Your task to perform on an android device: allow cookies in the chrome app Image 0: 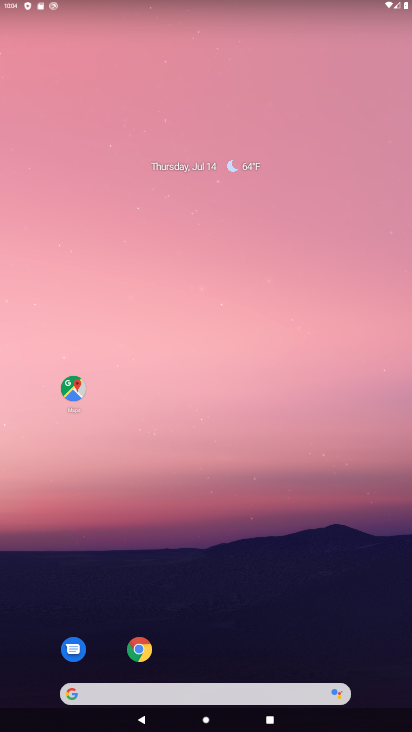
Step 0: drag from (255, 625) to (272, 217)
Your task to perform on an android device: allow cookies in the chrome app Image 1: 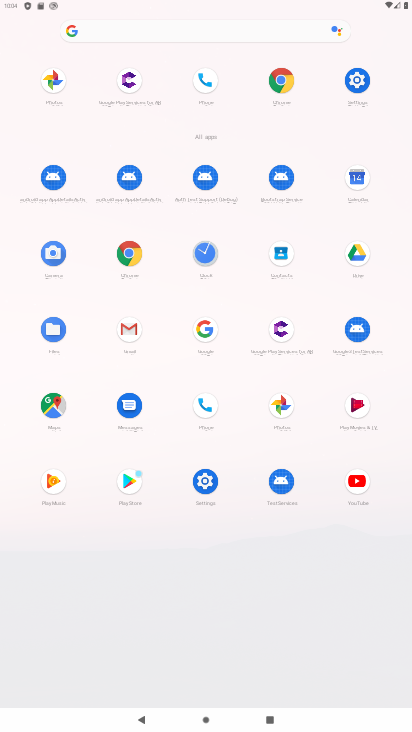
Step 1: click (127, 258)
Your task to perform on an android device: allow cookies in the chrome app Image 2: 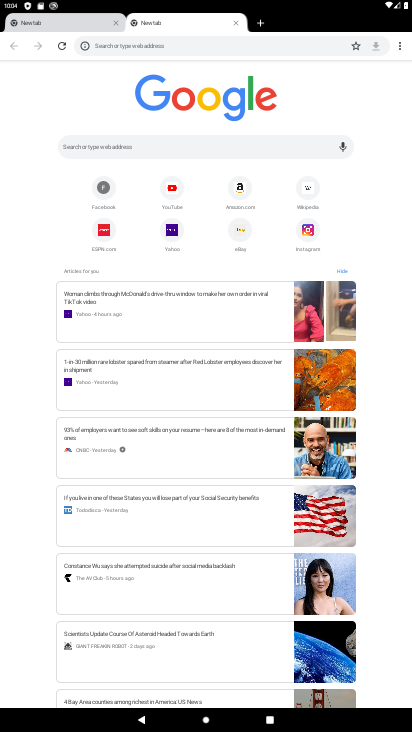
Step 2: drag from (404, 49) to (311, 204)
Your task to perform on an android device: allow cookies in the chrome app Image 3: 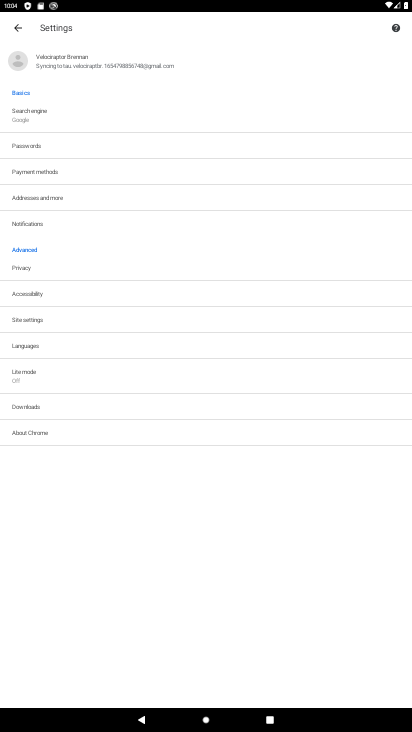
Step 3: click (31, 316)
Your task to perform on an android device: allow cookies in the chrome app Image 4: 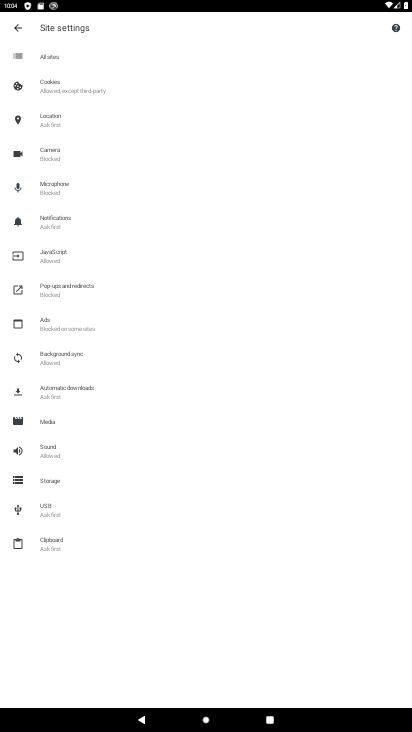
Step 4: click (59, 90)
Your task to perform on an android device: allow cookies in the chrome app Image 5: 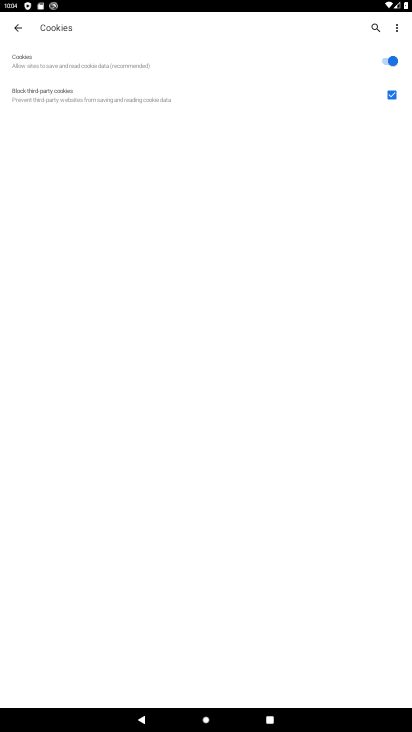
Step 5: task complete